Your task to perform on an android device: Open sound settings Image 0: 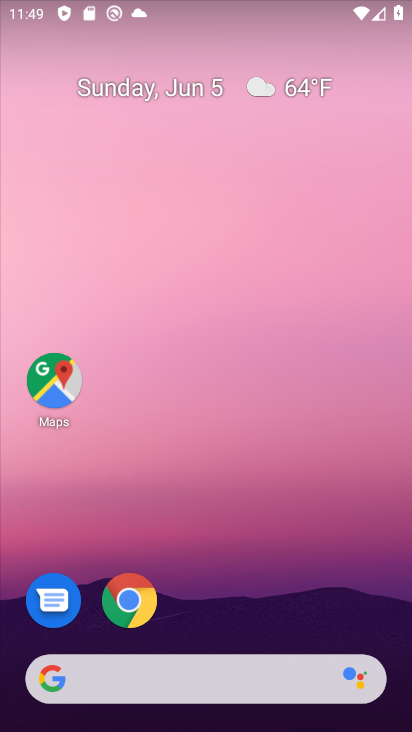
Step 0: drag from (217, 200) to (213, 117)
Your task to perform on an android device: Open sound settings Image 1: 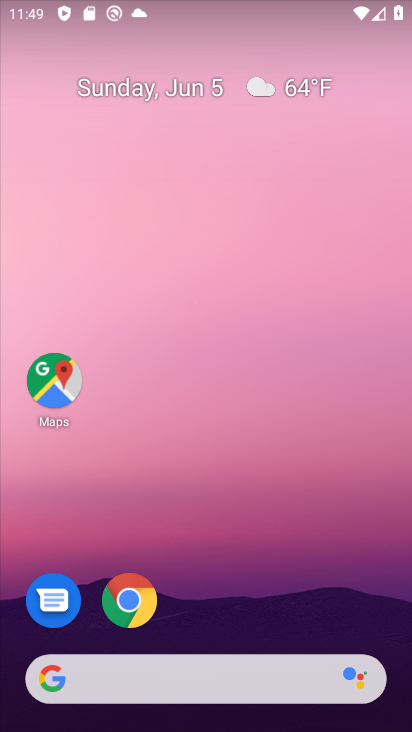
Step 1: drag from (215, 566) to (215, 68)
Your task to perform on an android device: Open sound settings Image 2: 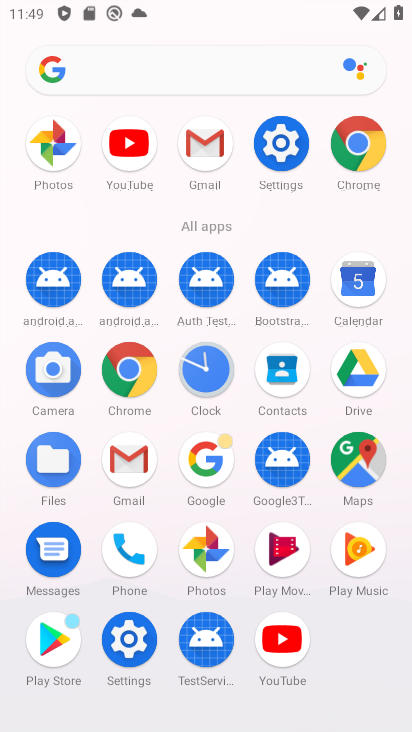
Step 2: click (279, 140)
Your task to perform on an android device: Open sound settings Image 3: 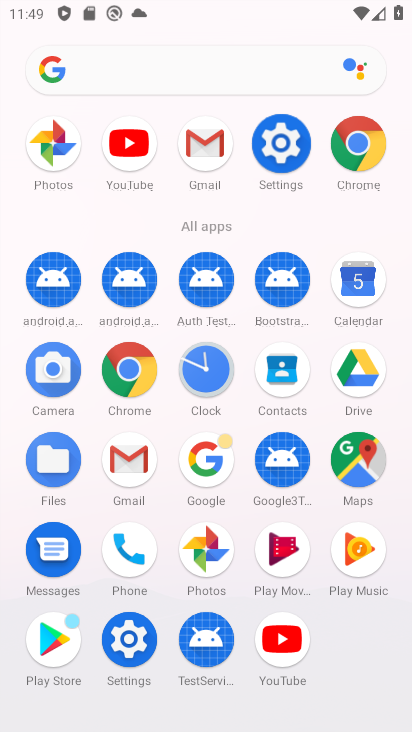
Step 3: click (279, 140)
Your task to perform on an android device: Open sound settings Image 4: 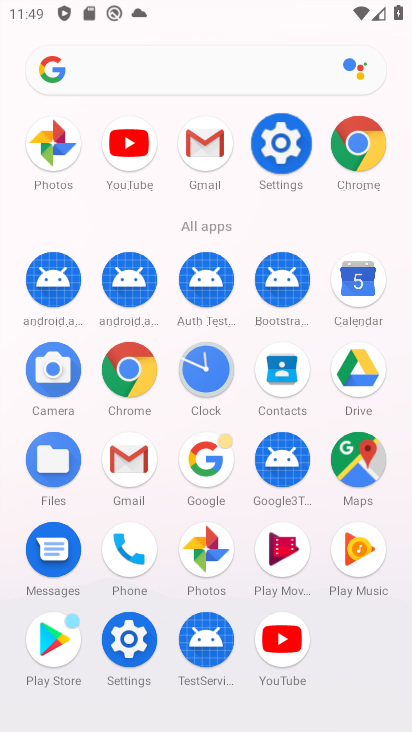
Step 4: click (279, 140)
Your task to perform on an android device: Open sound settings Image 5: 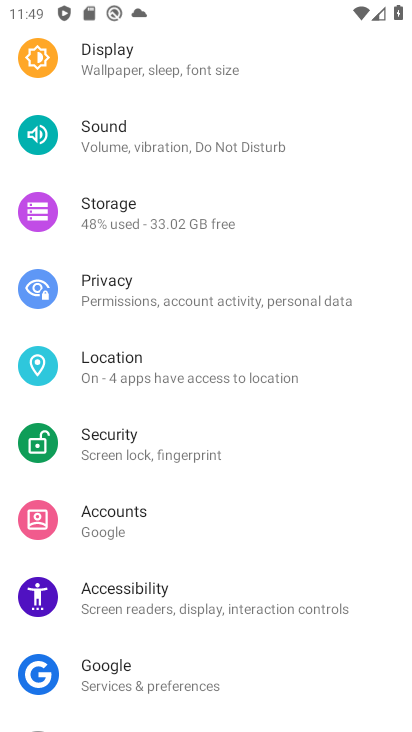
Step 5: click (111, 127)
Your task to perform on an android device: Open sound settings Image 6: 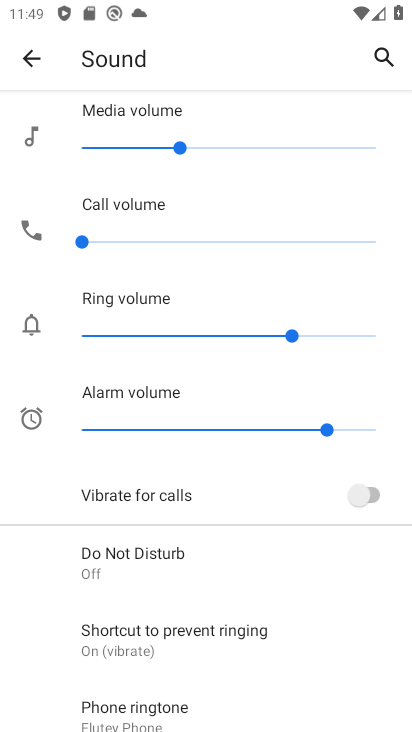
Step 6: task complete